Your task to perform on an android device: turn off notifications settings in the gmail app Image 0: 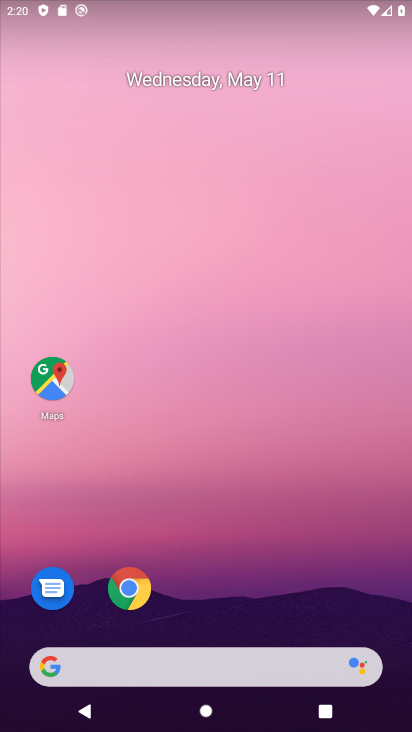
Step 0: drag from (266, 560) to (240, 122)
Your task to perform on an android device: turn off notifications settings in the gmail app Image 1: 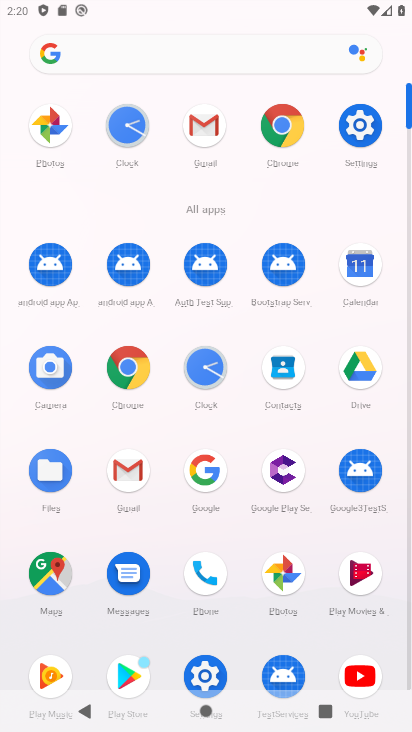
Step 1: click (110, 467)
Your task to perform on an android device: turn off notifications settings in the gmail app Image 2: 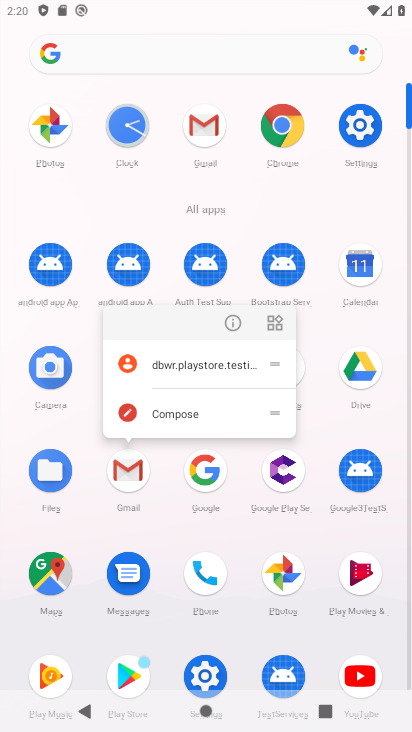
Step 2: click (235, 325)
Your task to perform on an android device: turn off notifications settings in the gmail app Image 3: 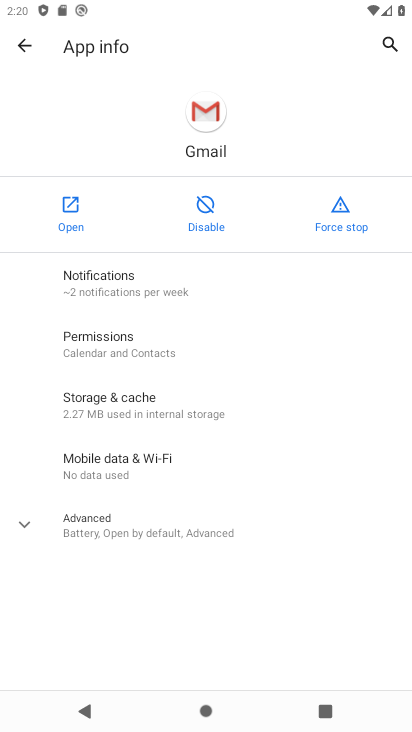
Step 3: click (105, 277)
Your task to perform on an android device: turn off notifications settings in the gmail app Image 4: 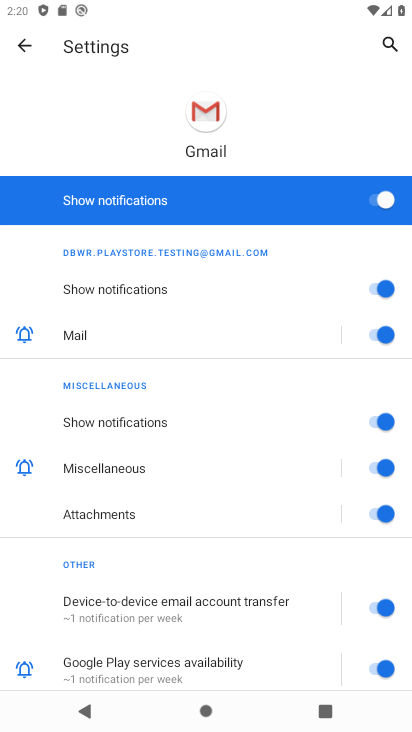
Step 4: click (376, 195)
Your task to perform on an android device: turn off notifications settings in the gmail app Image 5: 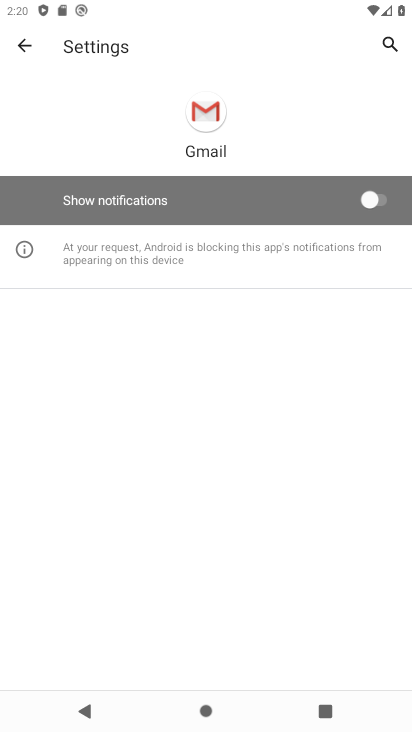
Step 5: task complete